Your task to perform on an android device: open app "Yahoo Mail" (install if not already installed) Image 0: 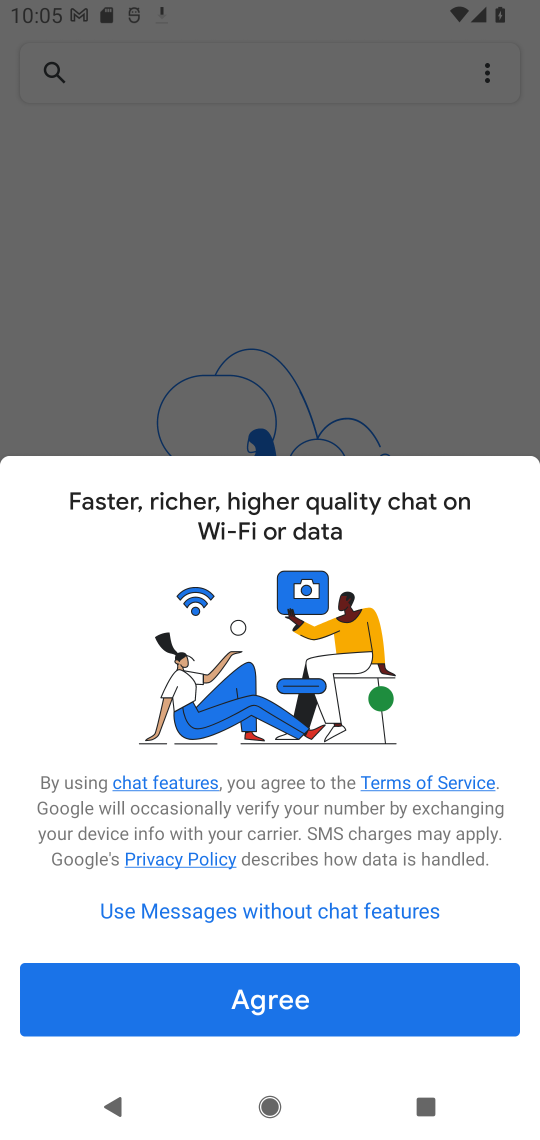
Step 0: press home button
Your task to perform on an android device: open app "Yahoo Mail" (install if not already installed) Image 1: 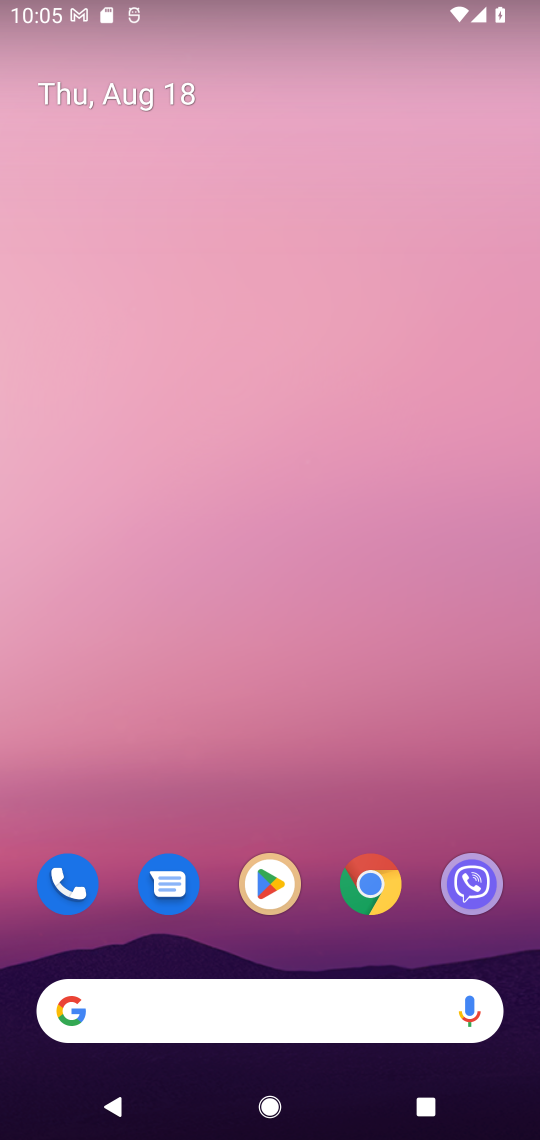
Step 1: click (294, 893)
Your task to perform on an android device: open app "Yahoo Mail" (install if not already installed) Image 2: 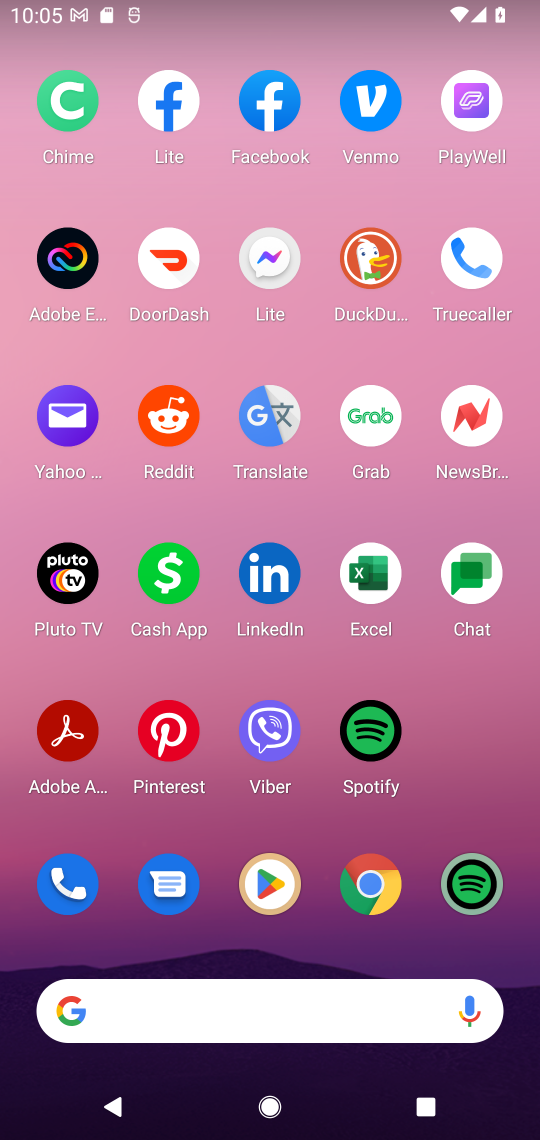
Step 2: click (261, 875)
Your task to perform on an android device: open app "Yahoo Mail" (install if not already installed) Image 3: 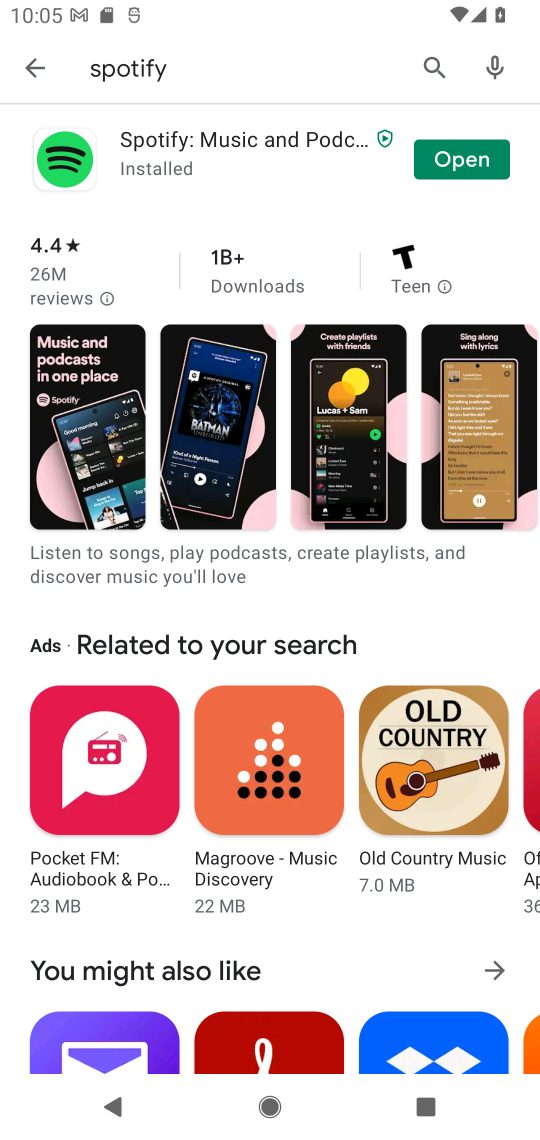
Step 3: click (426, 73)
Your task to perform on an android device: open app "Yahoo Mail" (install if not already installed) Image 4: 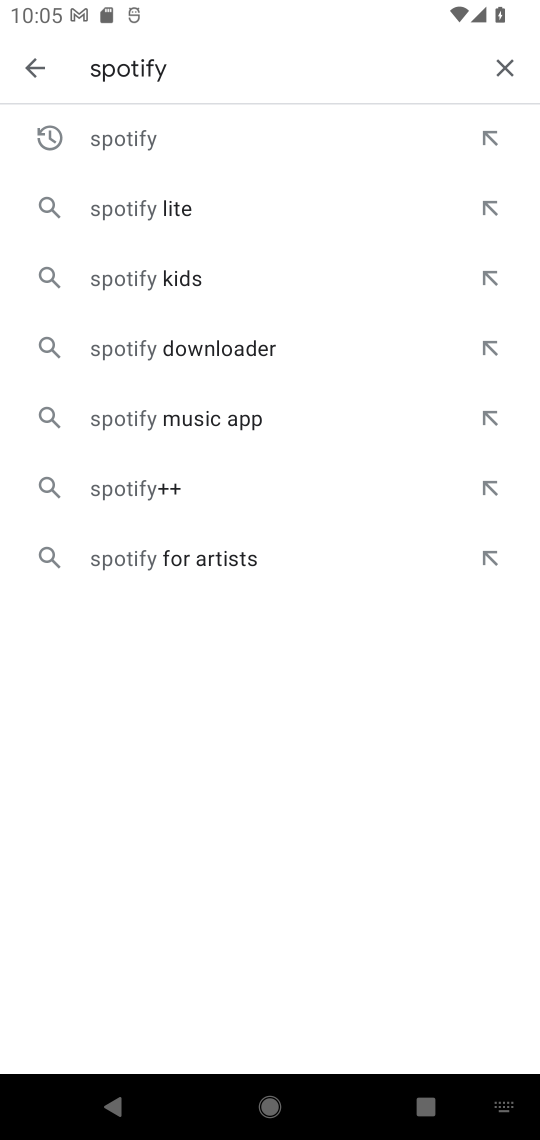
Step 4: click (506, 73)
Your task to perform on an android device: open app "Yahoo Mail" (install if not already installed) Image 5: 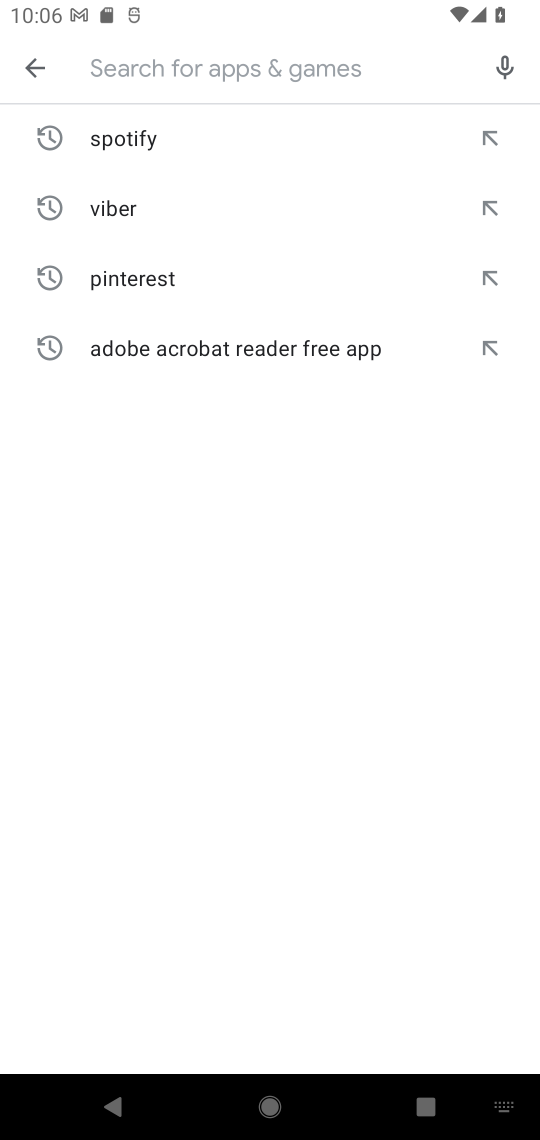
Step 5: type "yahoo"
Your task to perform on an android device: open app "Yahoo Mail" (install if not already installed) Image 6: 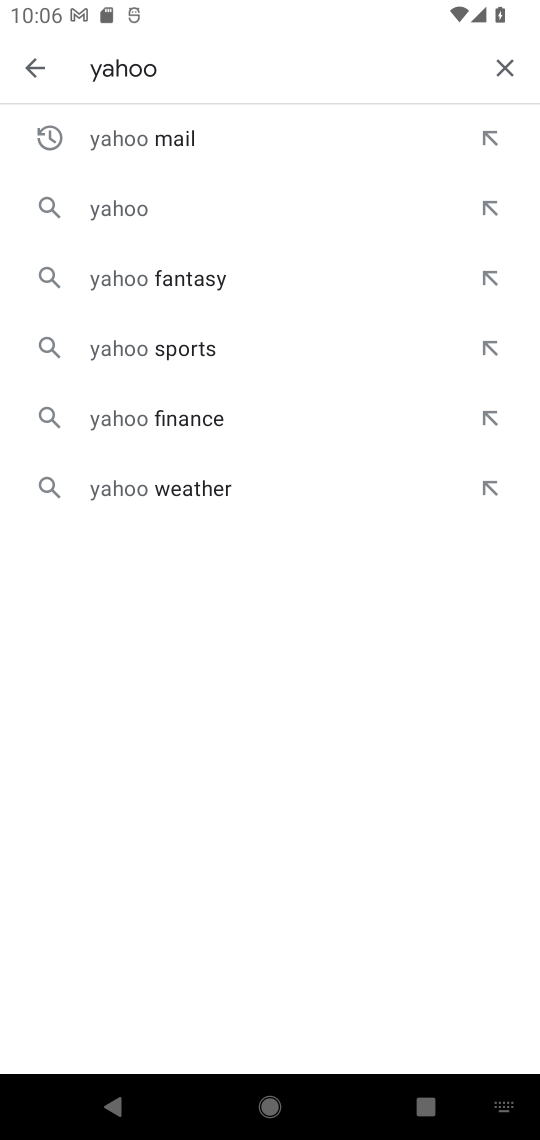
Step 6: click (296, 142)
Your task to perform on an android device: open app "Yahoo Mail" (install if not already installed) Image 7: 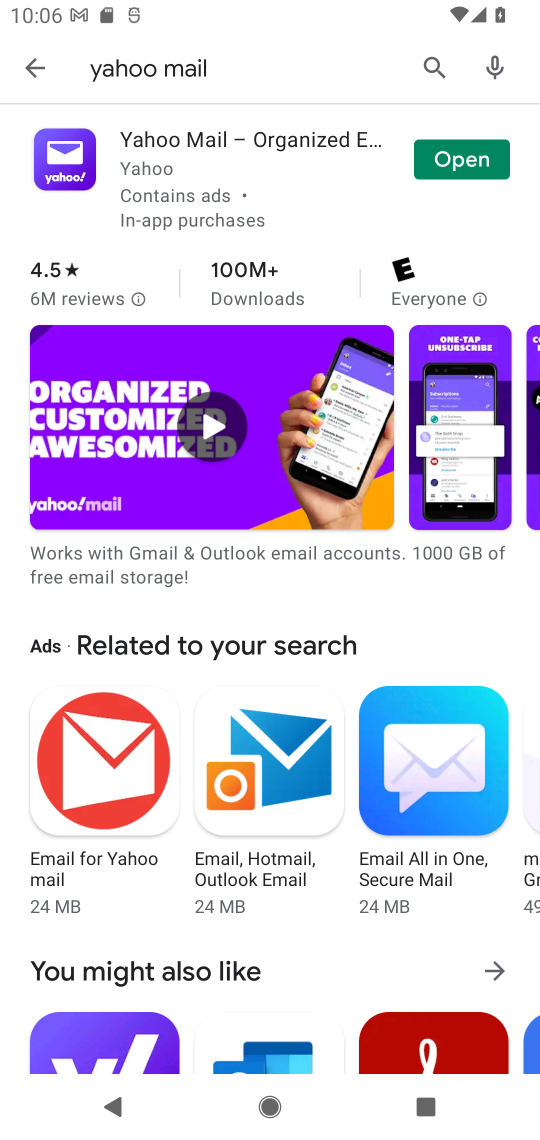
Step 7: click (438, 142)
Your task to perform on an android device: open app "Yahoo Mail" (install if not already installed) Image 8: 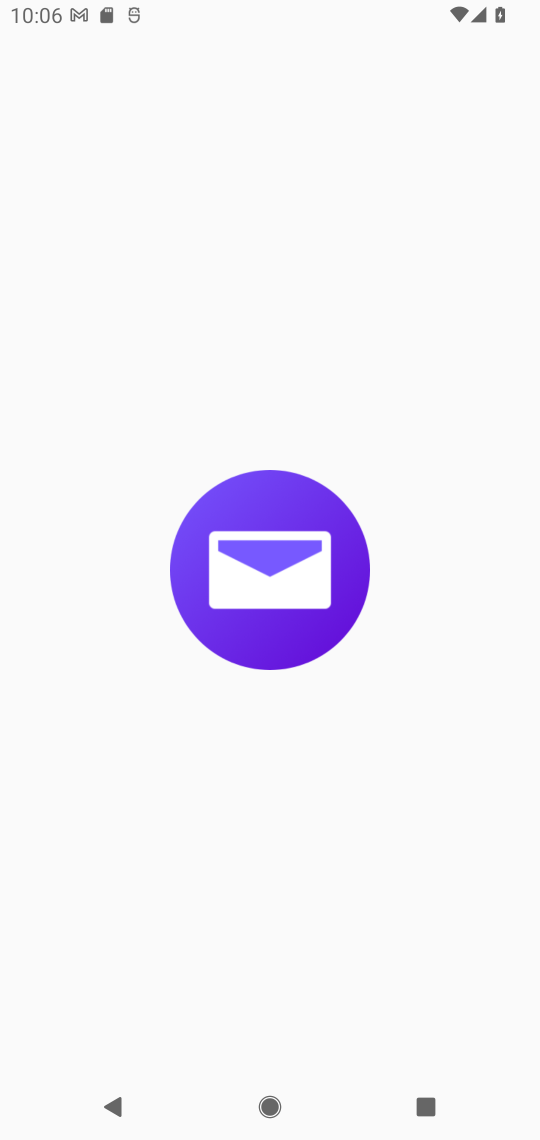
Step 8: task complete